Your task to perform on an android device: turn off location history Image 0: 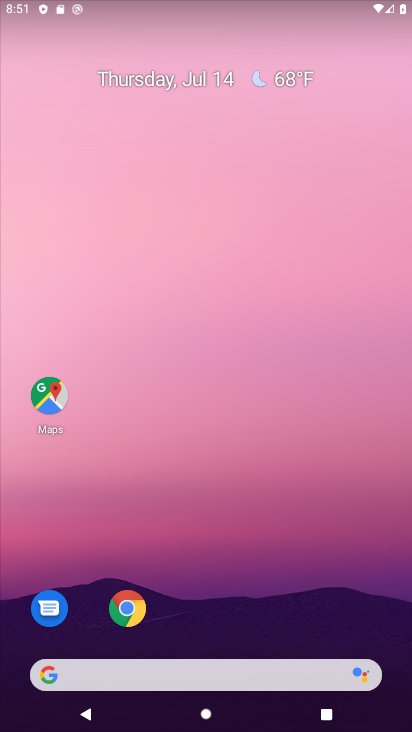
Step 0: drag from (216, 671) to (98, 21)
Your task to perform on an android device: turn off location history Image 1: 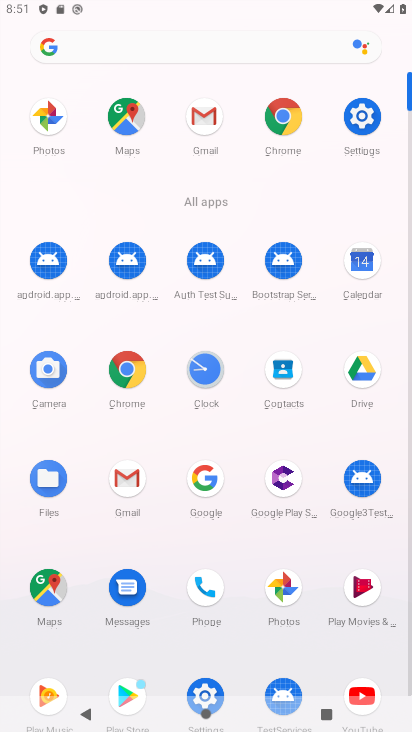
Step 1: click (362, 134)
Your task to perform on an android device: turn off location history Image 2: 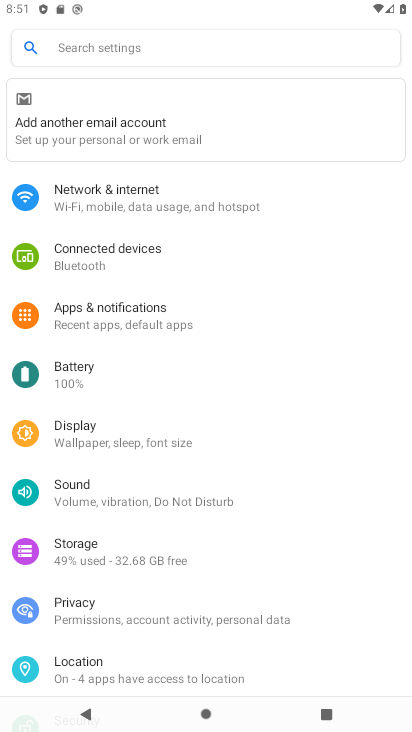
Step 2: click (124, 675)
Your task to perform on an android device: turn off location history Image 3: 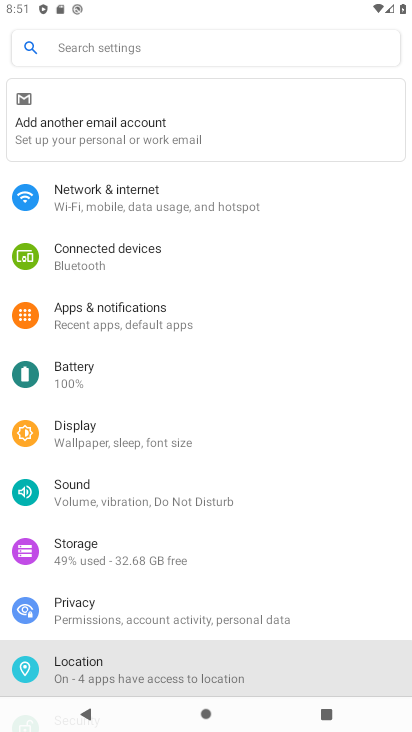
Step 3: click (124, 675)
Your task to perform on an android device: turn off location history Image 4: 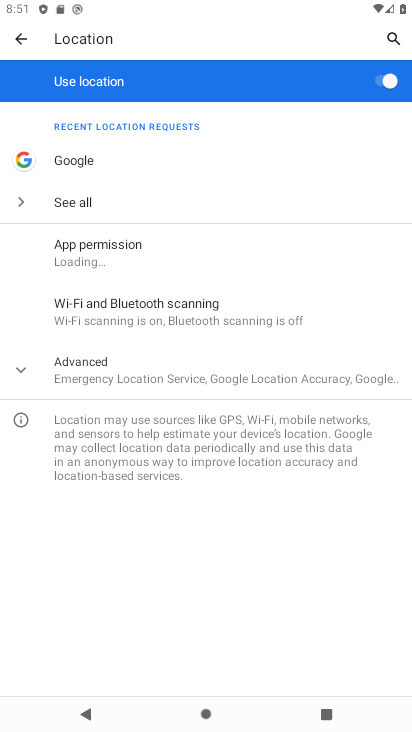
Step 4: click (108, 373)
Your task to perform on an android device: turn off location history Image 5: 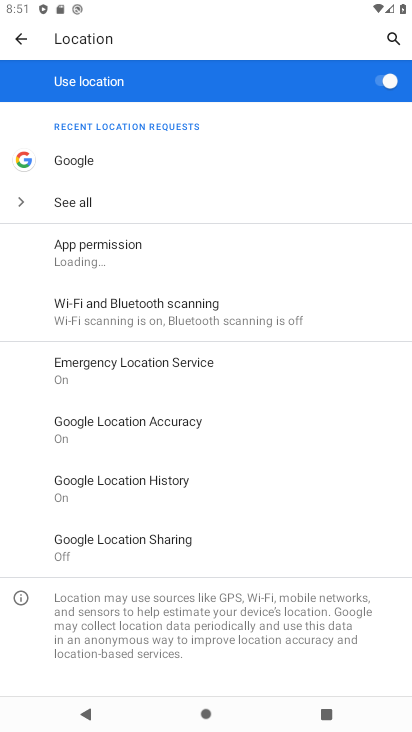
Step 5: click (186, 486)
Your task to perform on an android device: turn off location history Image 6: 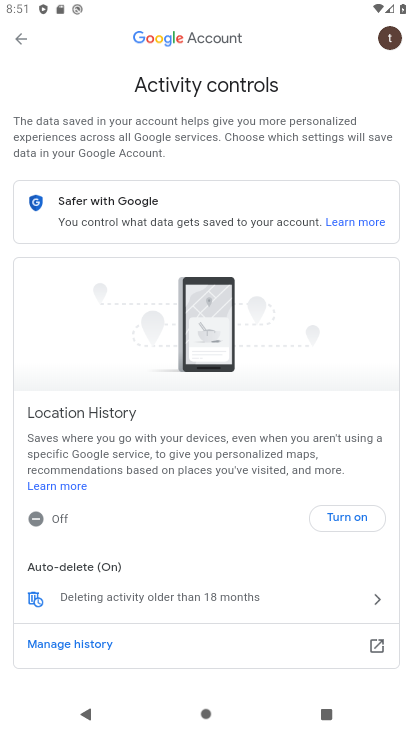
Step 6: task complete